Your task to perform on an android device: Clear the shopping cart on amazon.com. Add "rayovac triple a" to the cart on amazon.com Image 0: 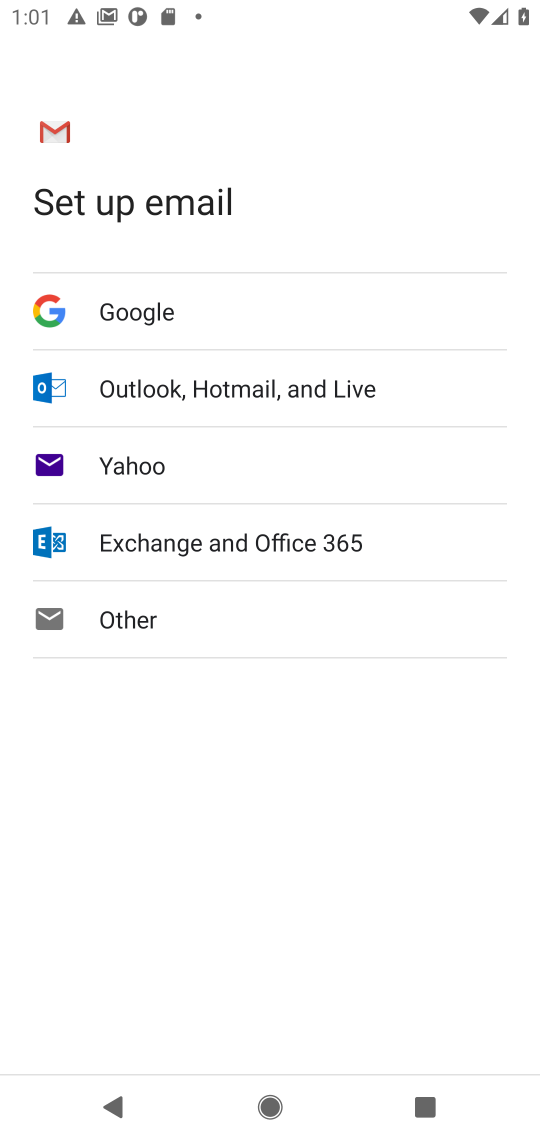
Step 0: press home button
Your task to perform on an android device: Clear the shopping cart on amazon.com. Add "rayovac triple a" to the cart on amazon.com Image 1: 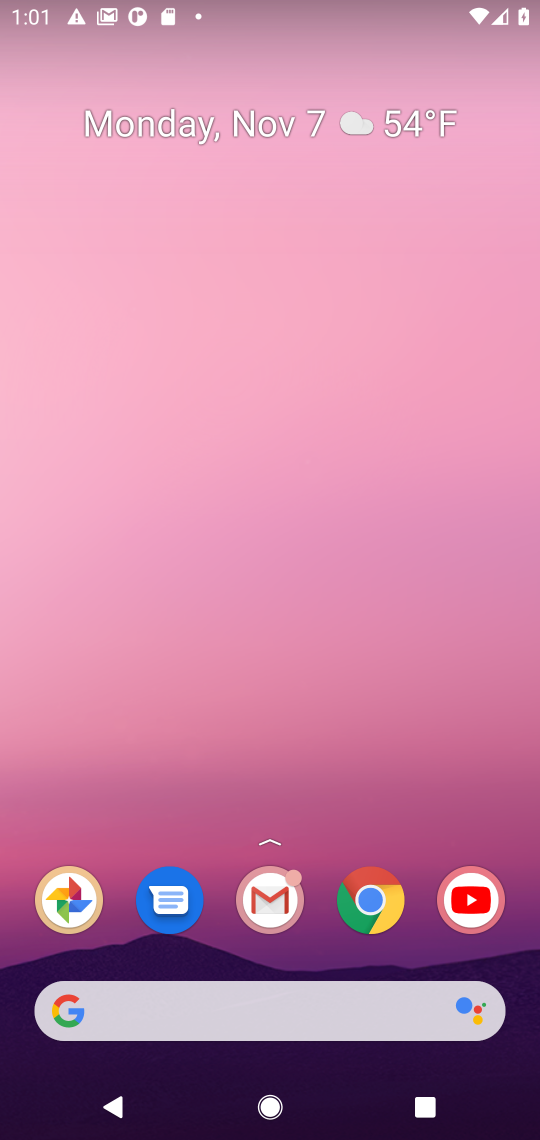
Step 1: click (312, 1028)
Your task to perform on an android device: Clear the shopping cart on amazon.com. Add "rayovac triple a" to the cart on amazon.com Image 2: 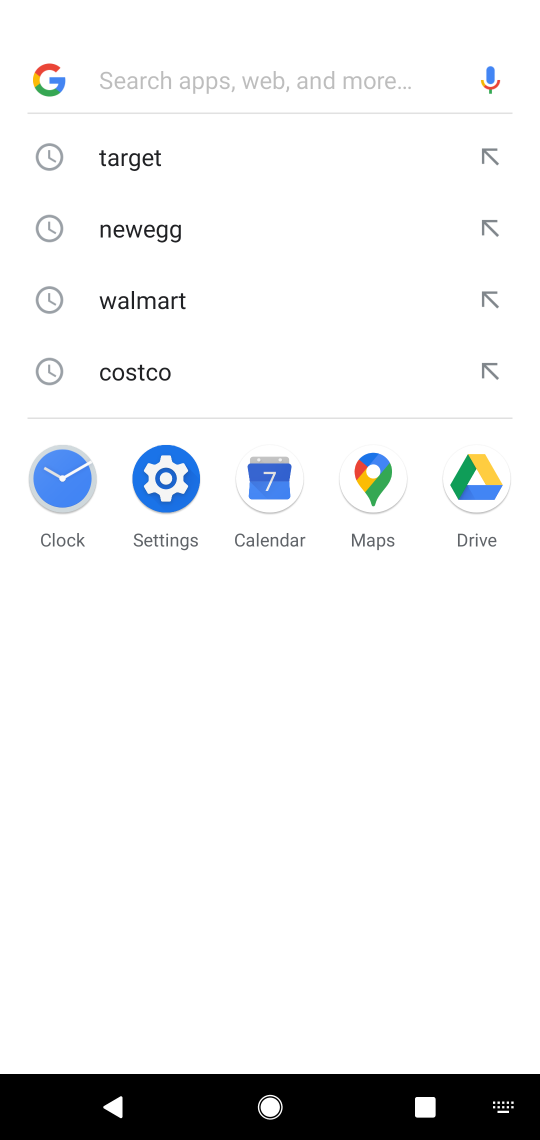
Step 2: type "amazon"
Your task to perform on an android device: Clear the shopping cart on amazon.com. Add "rayovac triple a" to the cart on amazon.com Image 3: 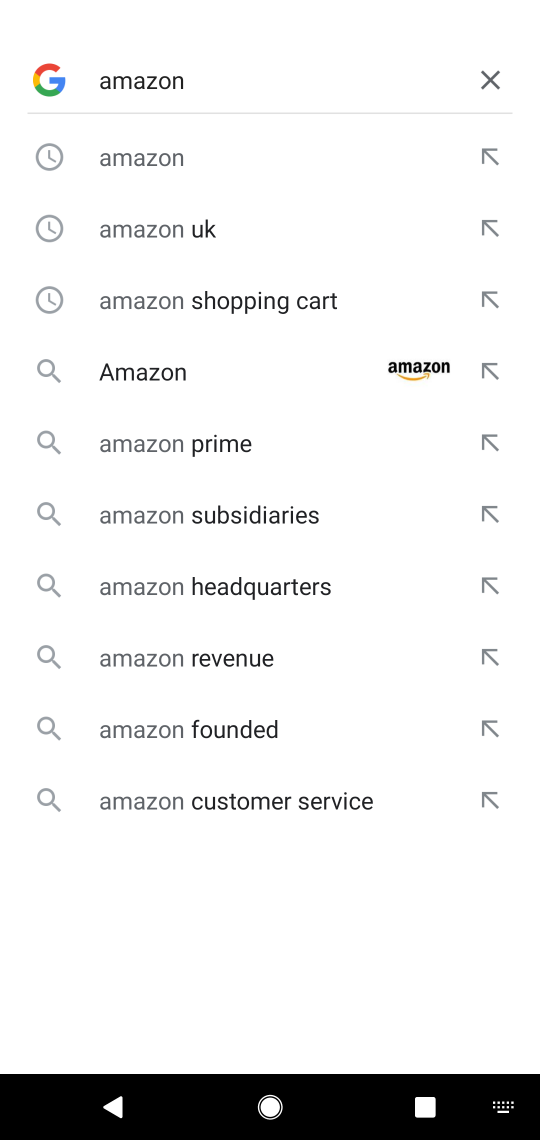
Step 3: click (260, 143)
Your task to perform on an android device: Clear the shopping cart on amazon.com. Add "rayovac triple a" to the cart on amazon.com Image 4: 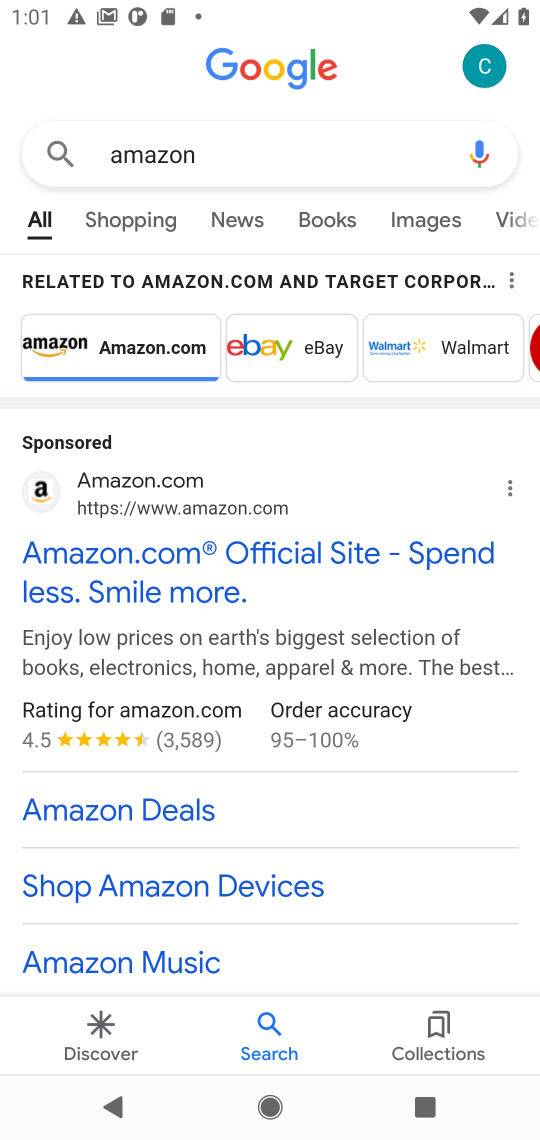
Step 4: click (248, 613)
Your task to perform on an android device: Clear the shopping cart on amazon.com. Add "rayovac triple a" to the cart on amazon.com Image 5: 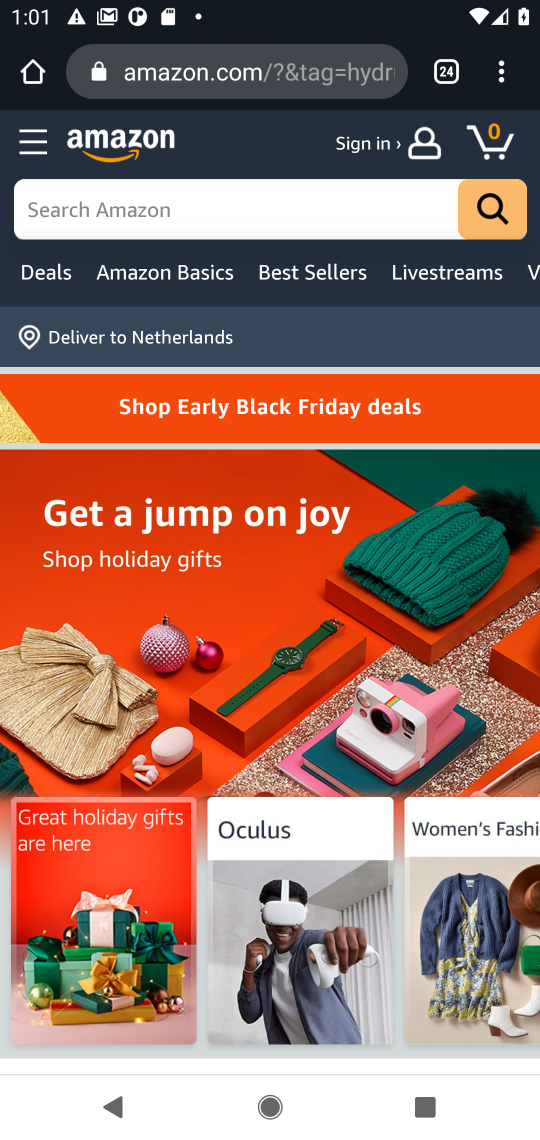
Step 5: task complete